Your task to perform on an android device: Show me recent news Image 0: 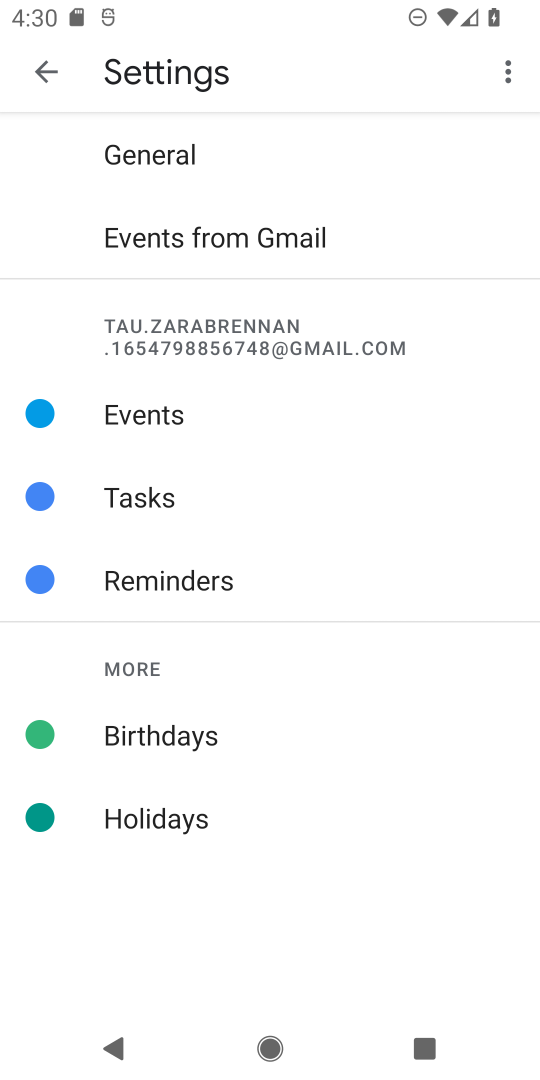
Step 0: press home button
Your task to perform on an android device: Show me recent news Image 1: 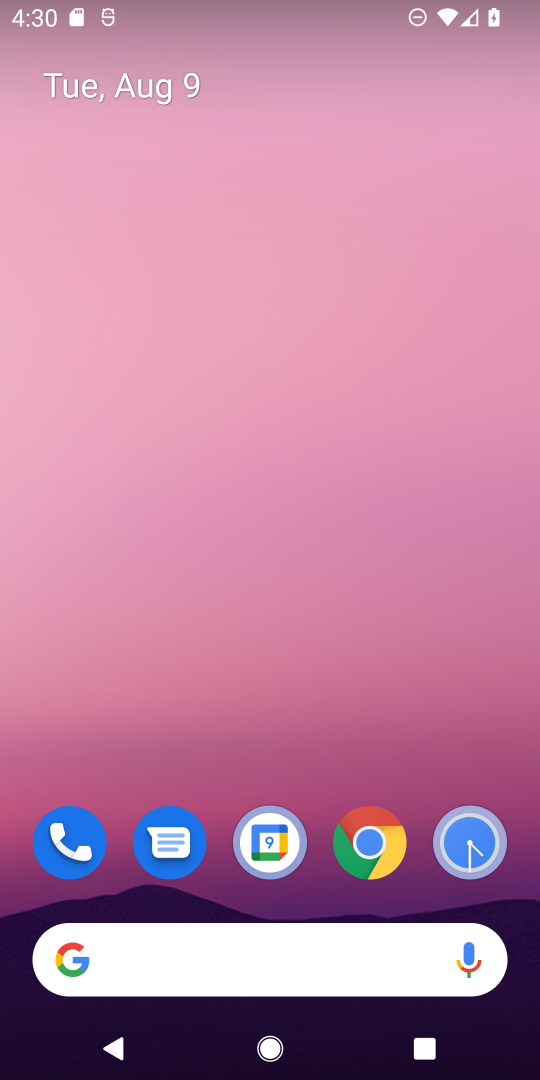
Step 1: drag from (330, 952) to (279, 44)
Your task to perform on an android device: Show me recent news Image 2: 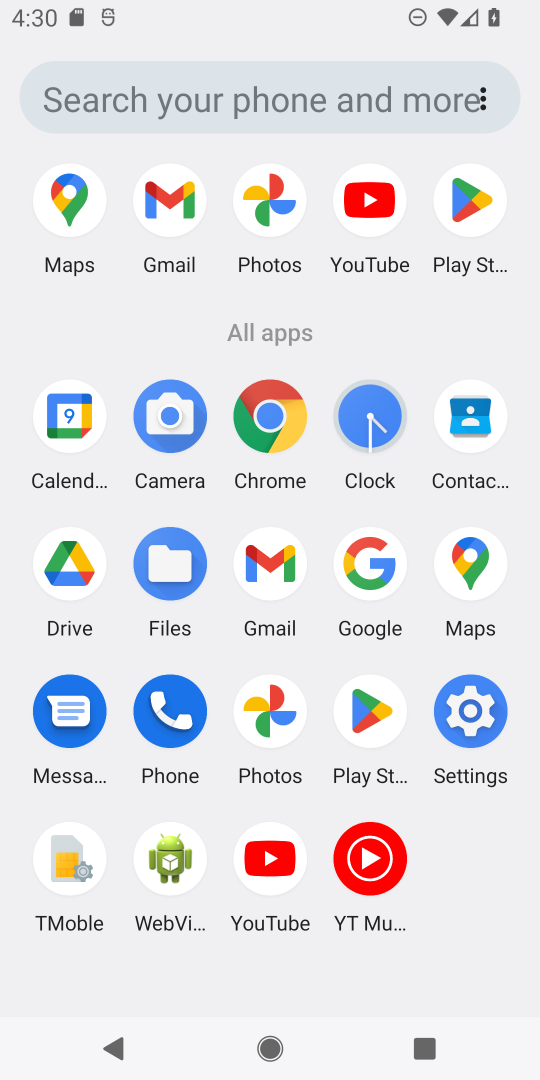
Step 2: click (280, 391)
Your task to perform on an android device: Show me recent news Image 3: 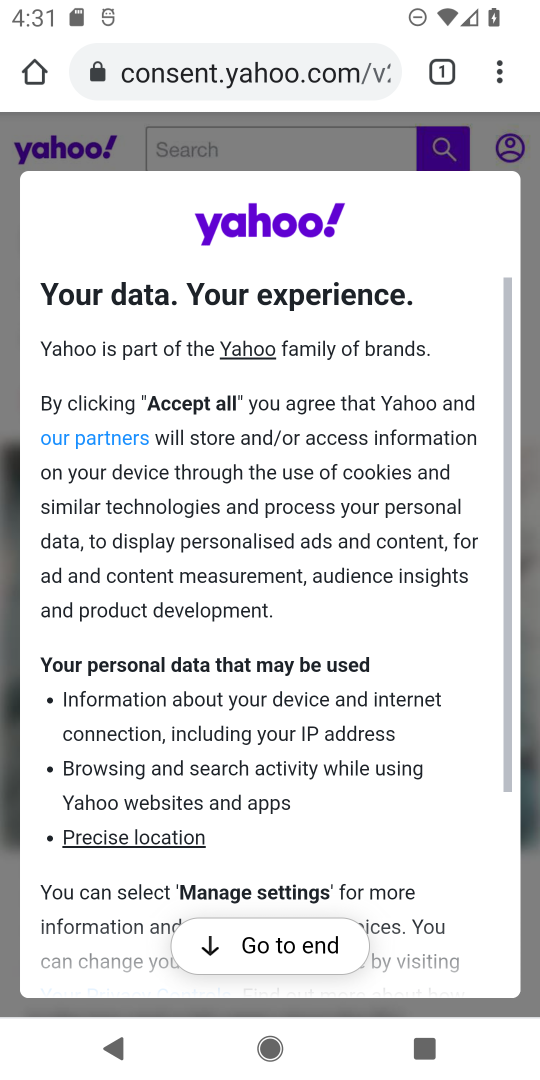
Step 3: click (261, 64)
Your task to perform on an android device: Show me recent news Image 4: 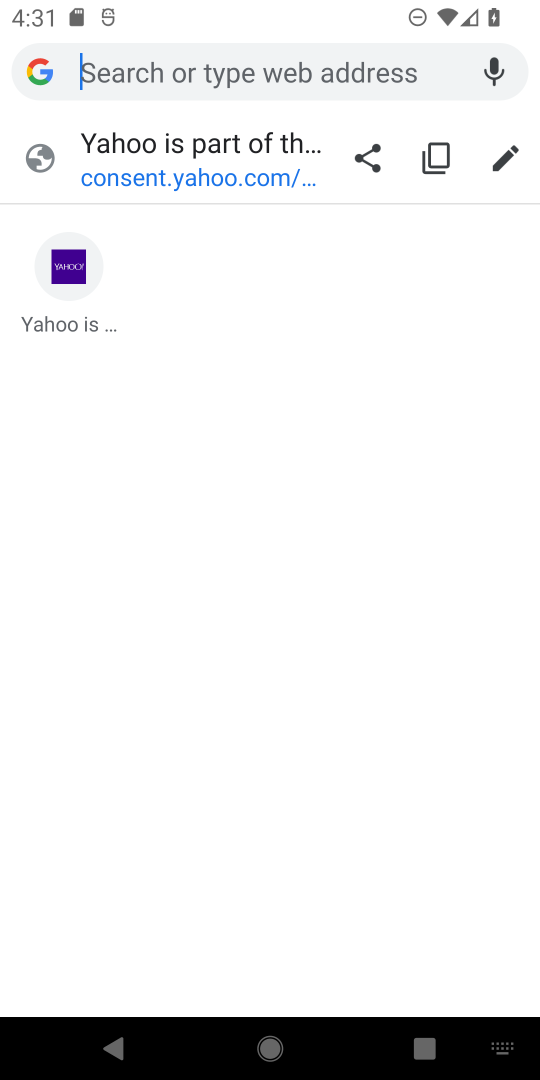
Step 4: type "show me recent news"
Your task to perform on an android device: Show me recent news Image 5: 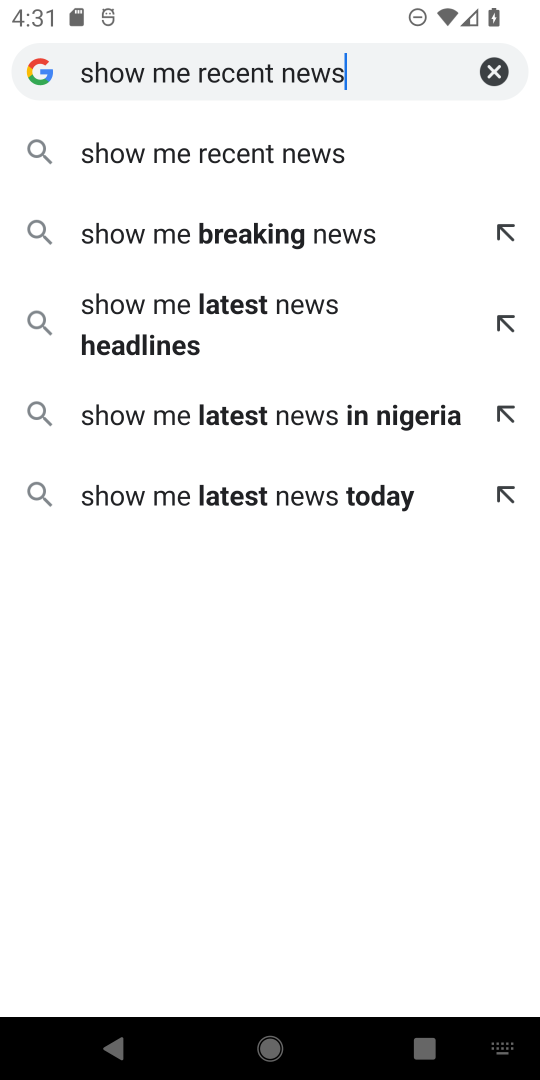
Step 5: click (308, 164)
Your task to perform on an android device: Show me recent news Image 6: 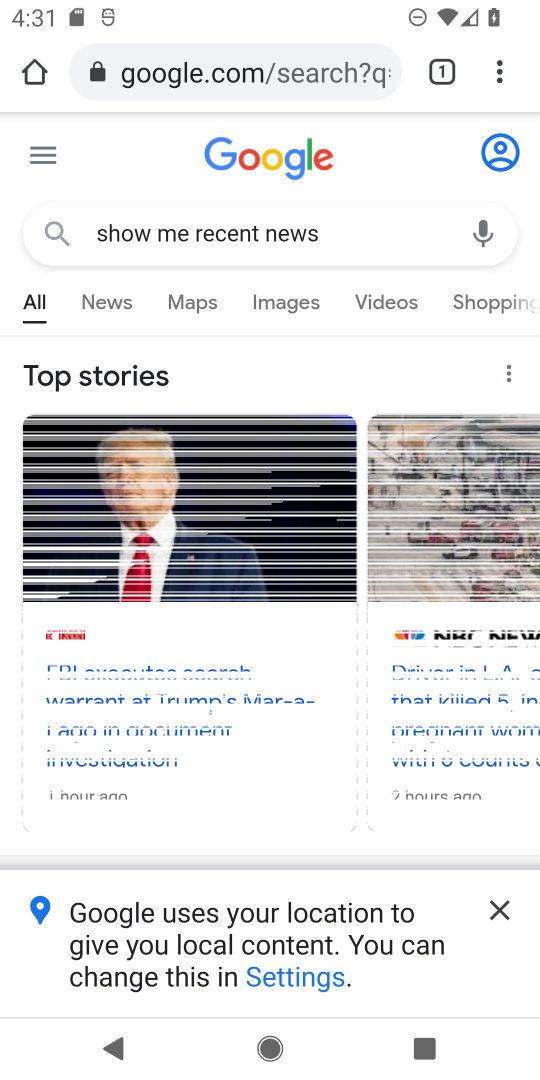
Step 6: task complete